Your task to perform on an android device: Set the phone to "Do not disturb". Image 0: 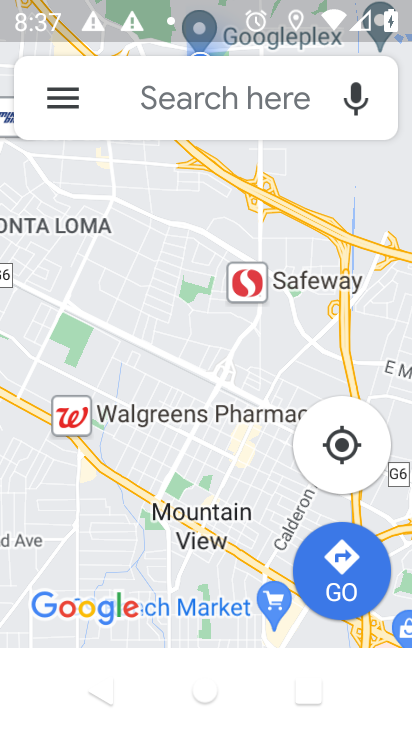
Step 0: press home button
Your task to perform on an android device: Set the phone to "Do not disturb". Image 1: 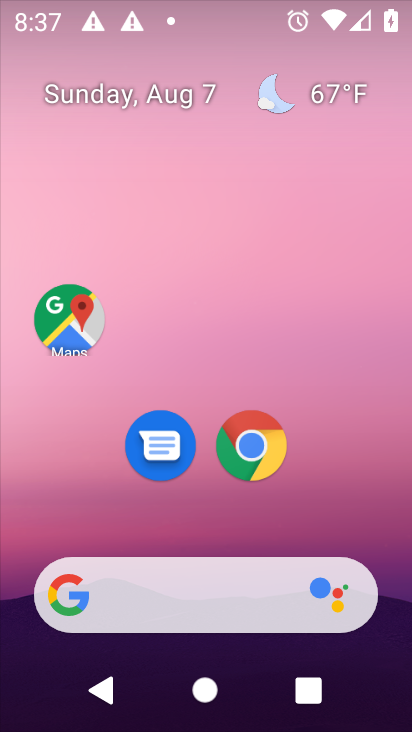
Step 1: drag from (137, 7) to (172, 529)
Your task to perform on an android device: Set the phone to "Do not disturb". Image 2: 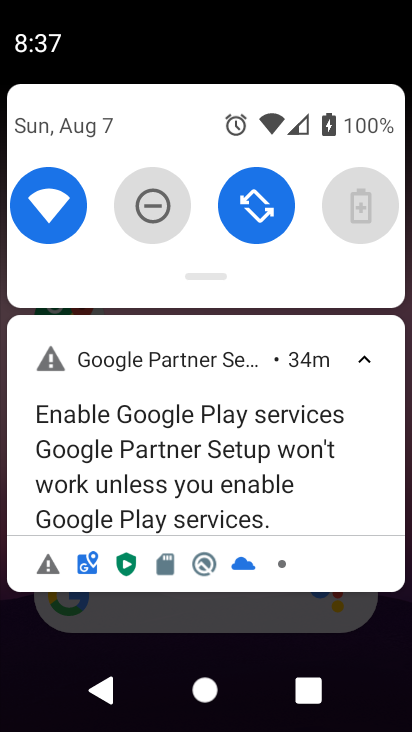
Step 2: click (161, 205)
Your task to perform on an android device: Set the phone to "Do not disturb". Image 3: 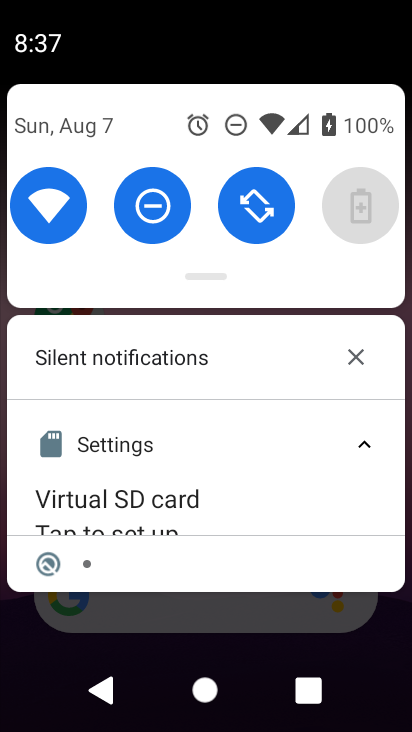
Step 3: task complete